Your task to perform on an android device: Add macbook pro 13 inch to the cart on walmart, then select checkout. Image 0: 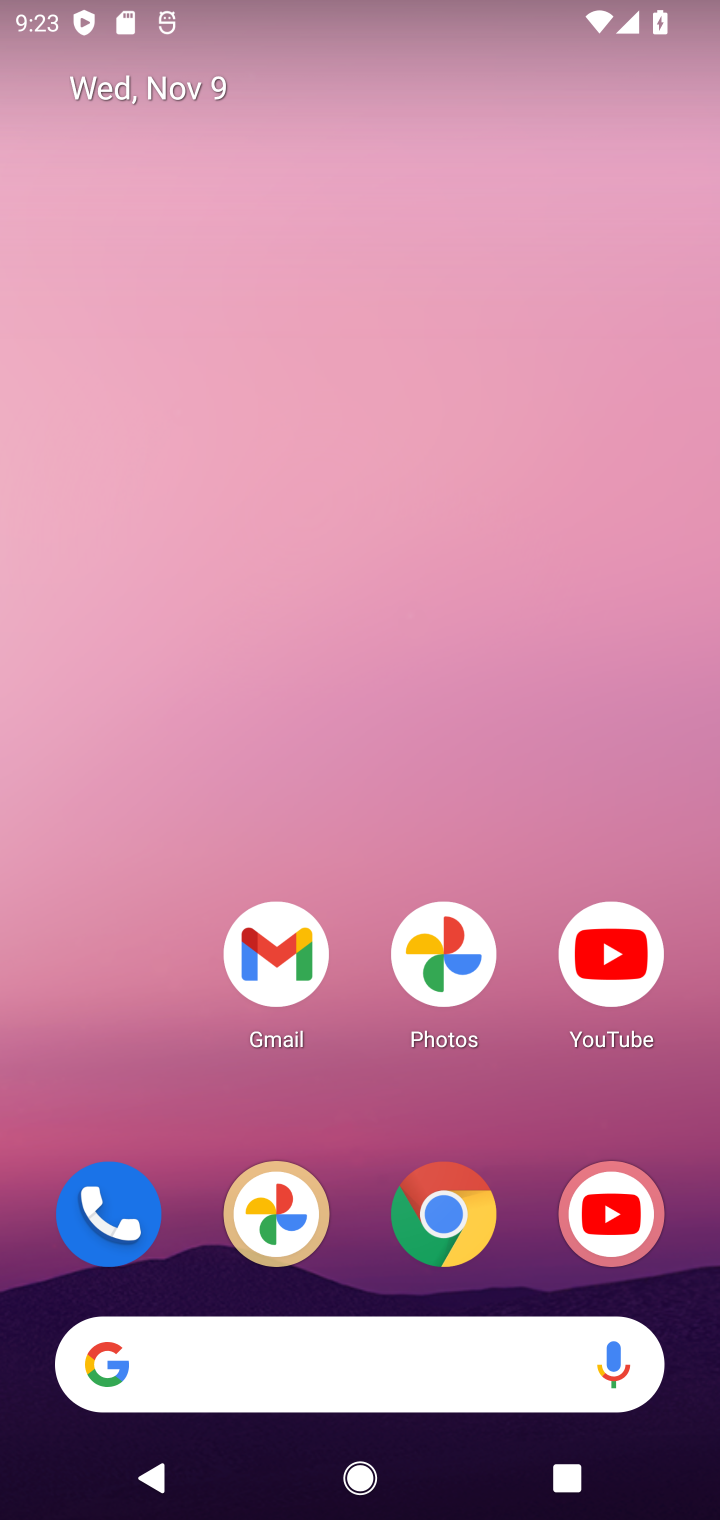
Step 0: press home button
Your task to perform on an android device: Add macbook pro 13 inch to the cart on walmart, then select checkout. Image 1: 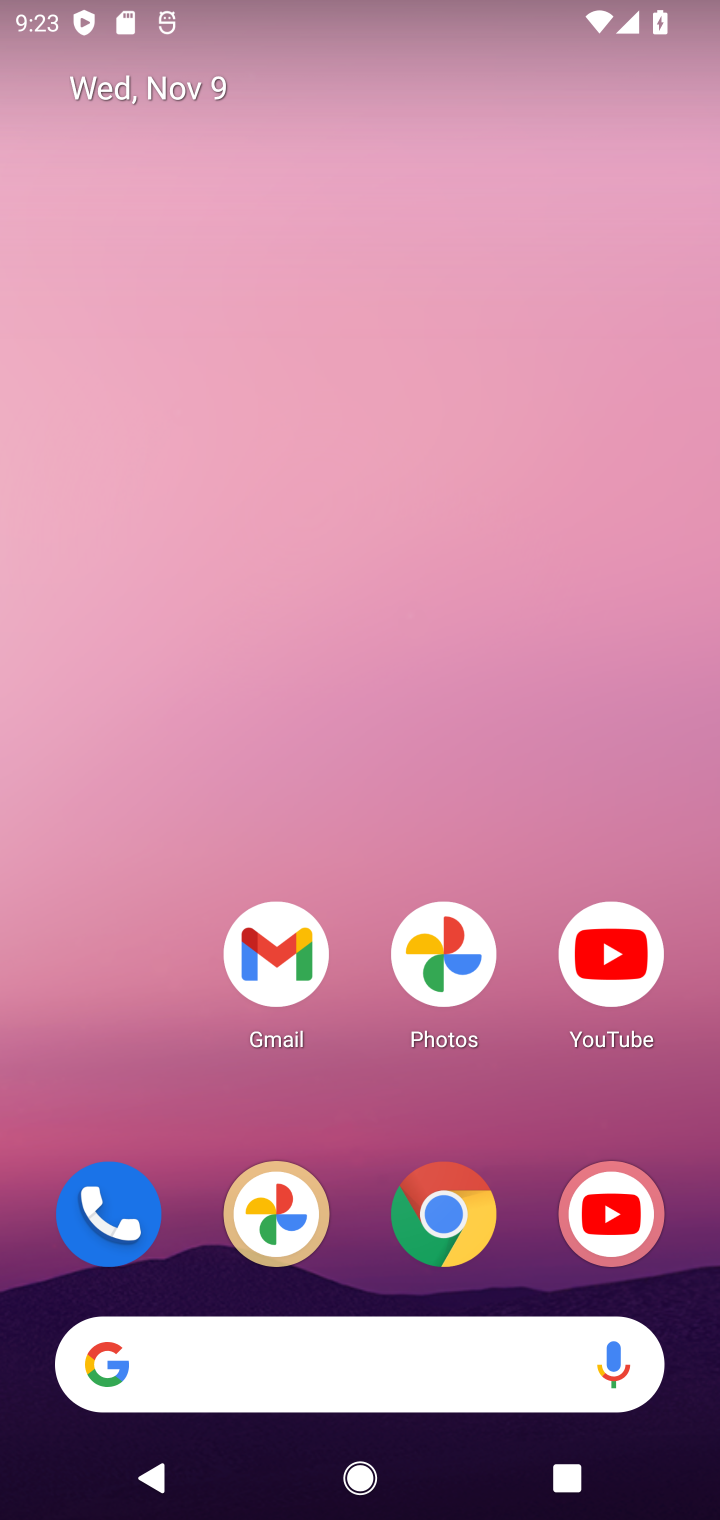
Step 1: drag from (327, 1142) to (392, 193)
Your task to perform on an android device: Add macbook pro 13 inch to the cart on walmart, then select checkout. Image 2: 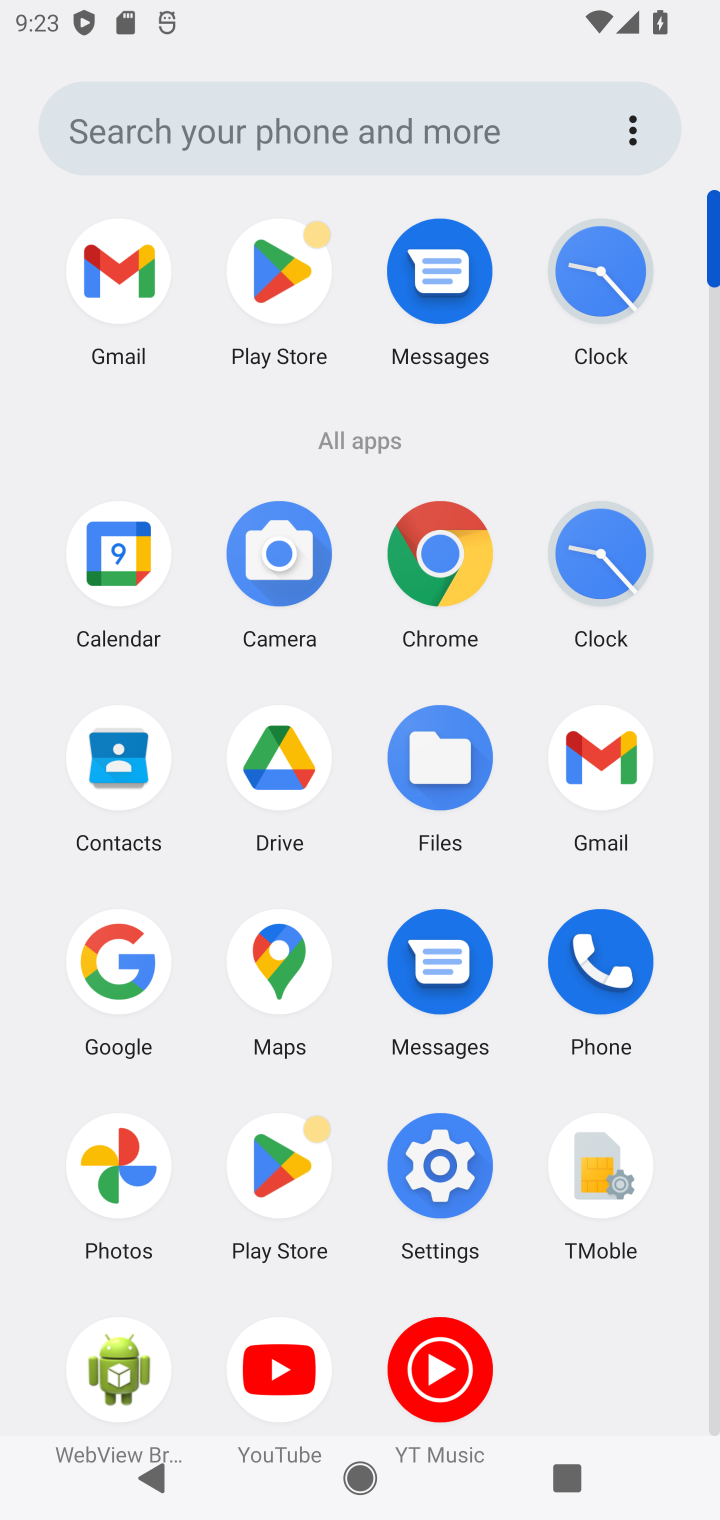
Step 2: click (426, 552)
Your task to perform on an android device: Add macbook pro 13 inch to the cart on walmart, then select checkout. Image 3: 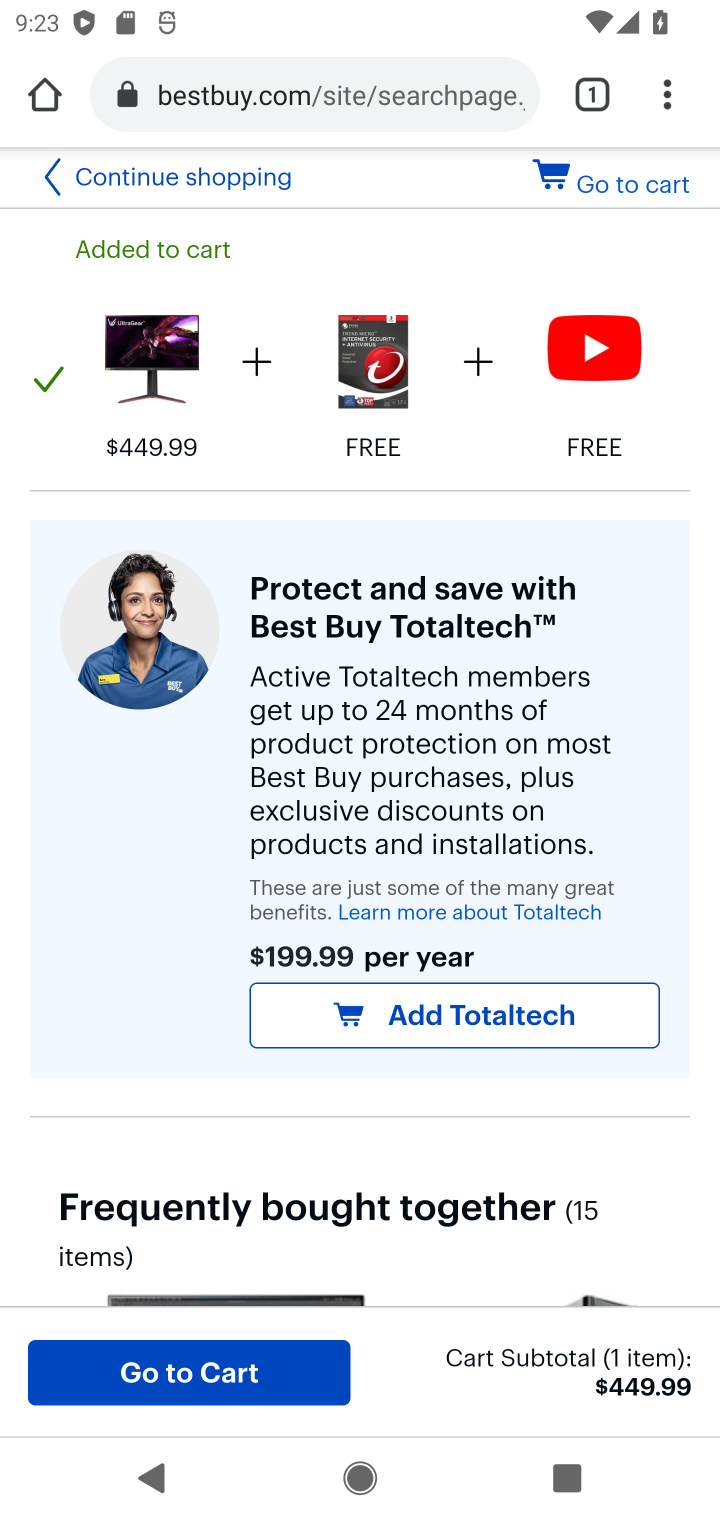
Step 3: click (371, 101)
Your task to perform on an android device: Add macbook pro 13 inch to the cart on walmart, then select checkout. Image 4: 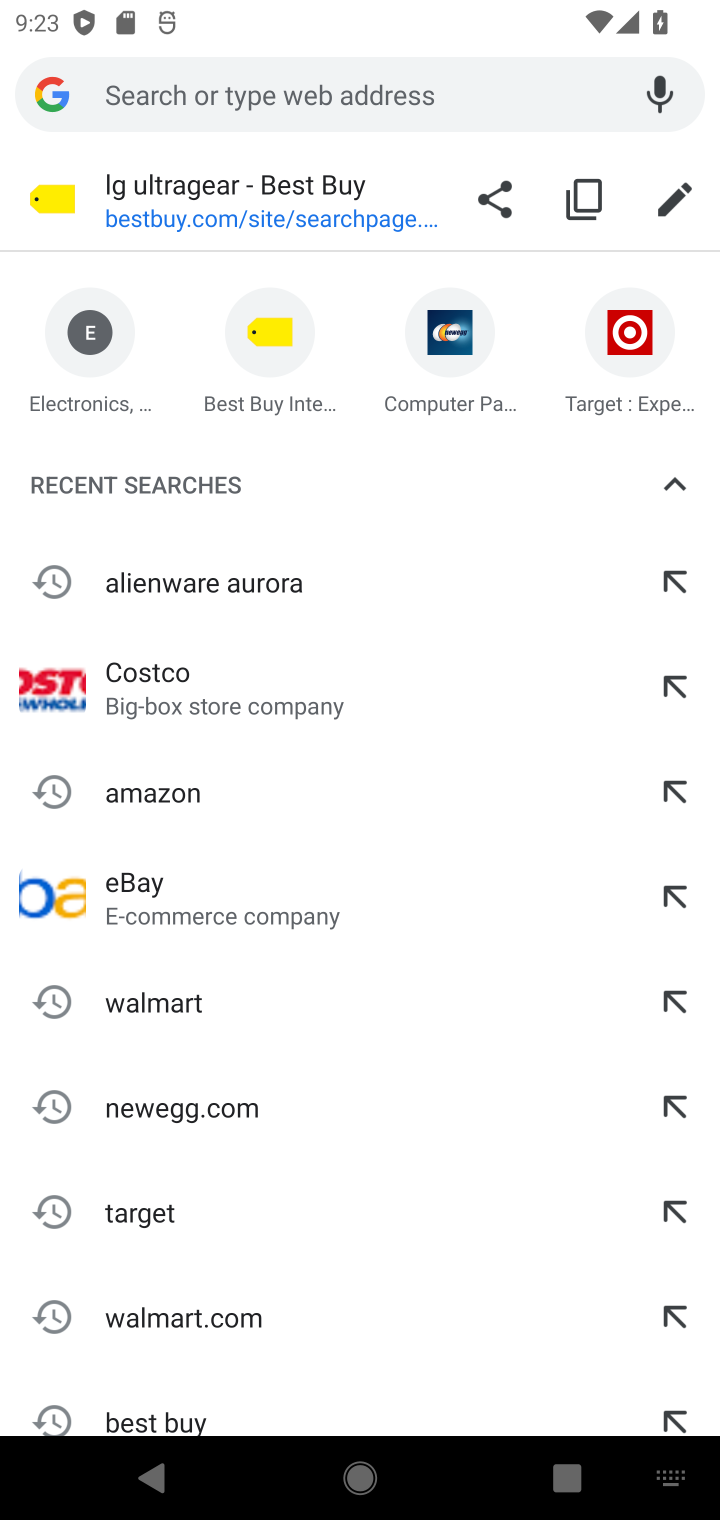
Step 4: type "walmart.com"
Your task to perform on an android device: Add macbook pro 13 inch to the cart on walmart, then select checkout. Image 5: 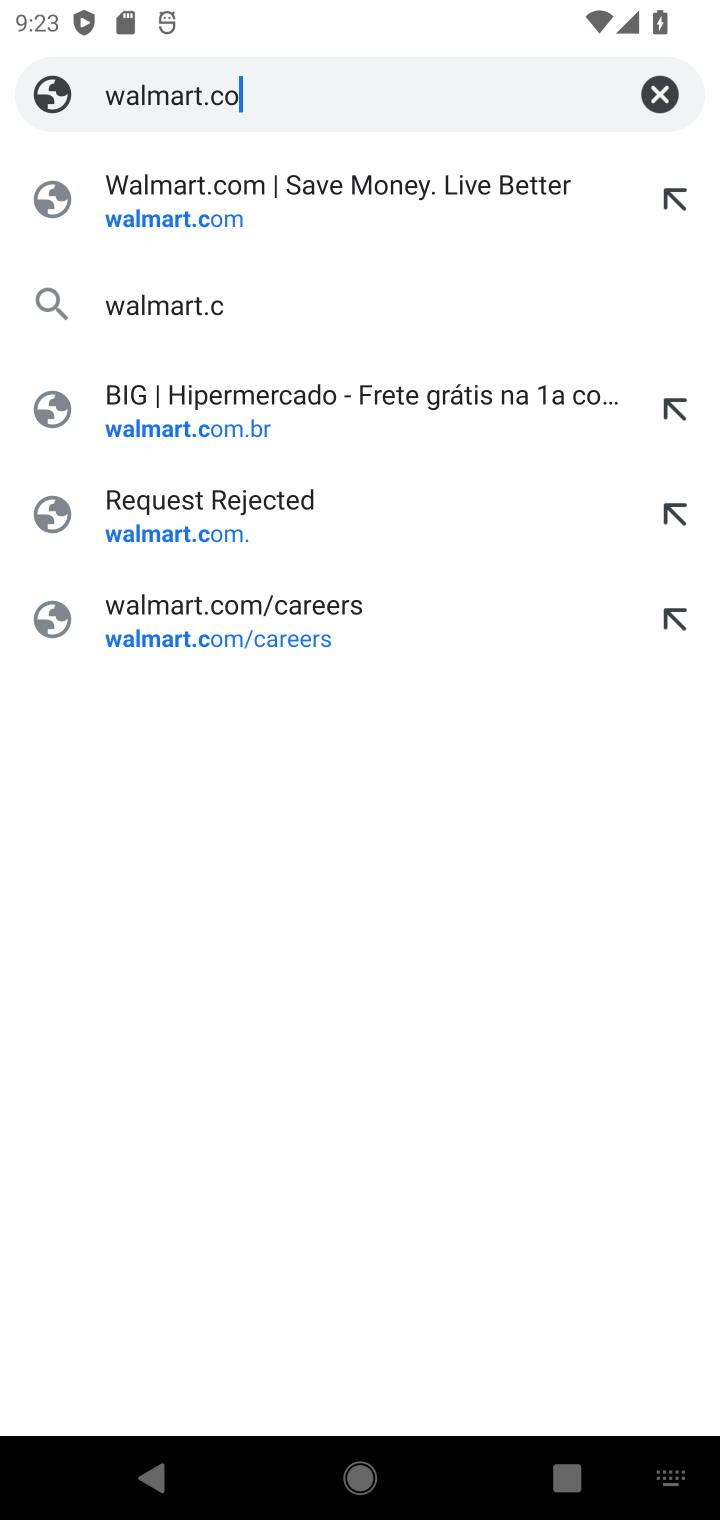
Step 5: press enter
Your task to perform on an android device: Add macbook pro 13 inch to the cart on walmart, then select checkout. Image 6: 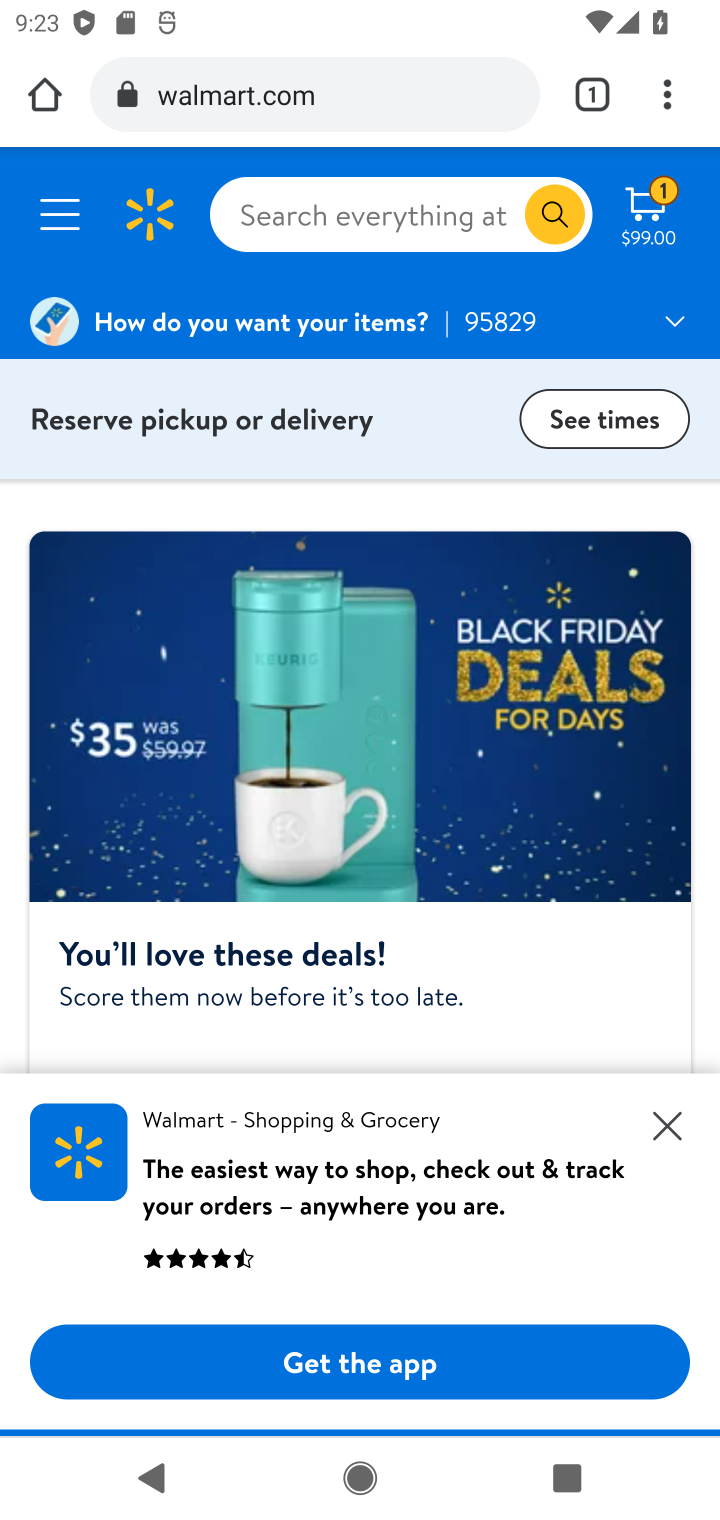
Step 6: click (443, 241)
Your task to perform on an android device: Add macbook pro 13 inch to the cart on walmart, then select checkout. Image 7: 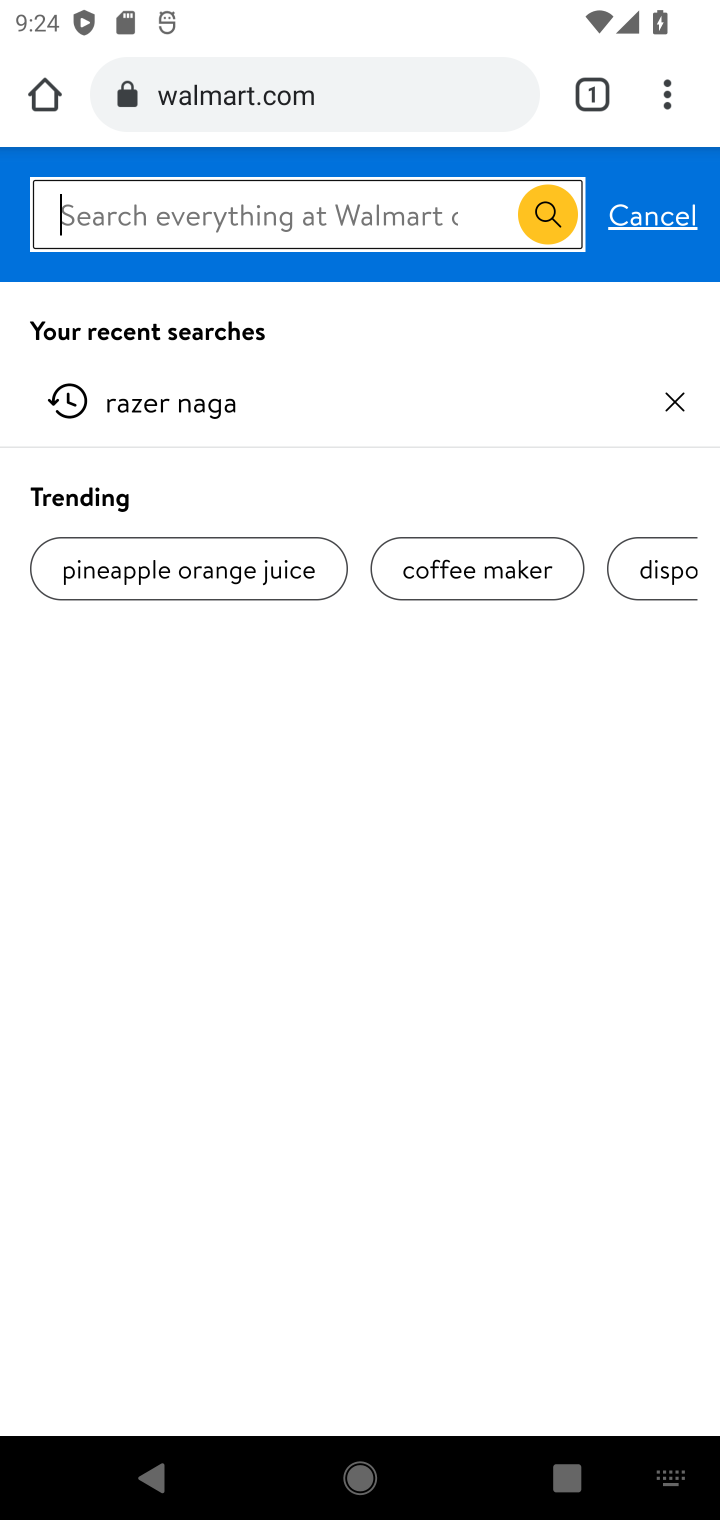
Step 7: type "macbook pro 13 inch"
Your task to perform on an android device: Add macbook pro 13 inch to the cart on walmart, then select checkout. Image 8: 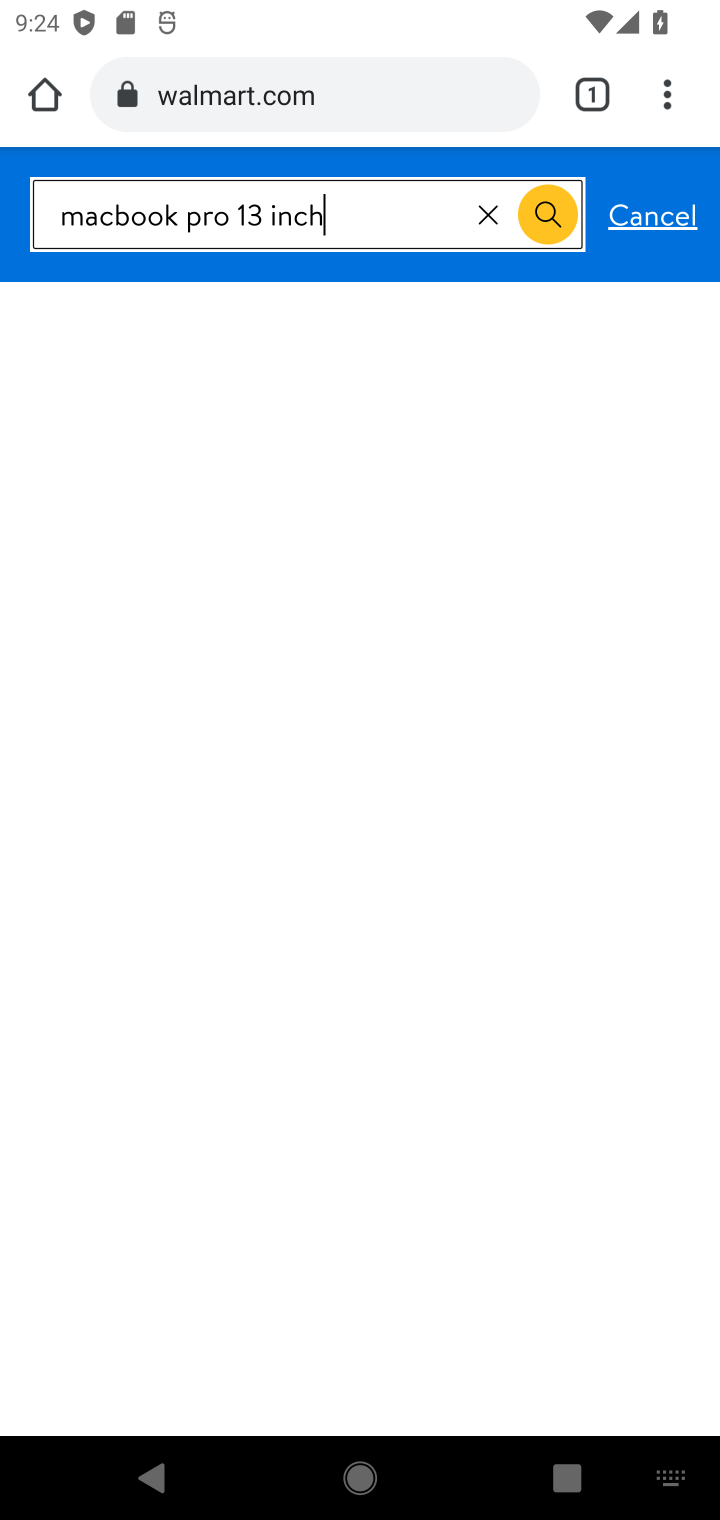
Step 8: press enter
Your task to perform on an android device: Add macbook pro 13 inch to the cart on walmart, then select checkout. Image 9: 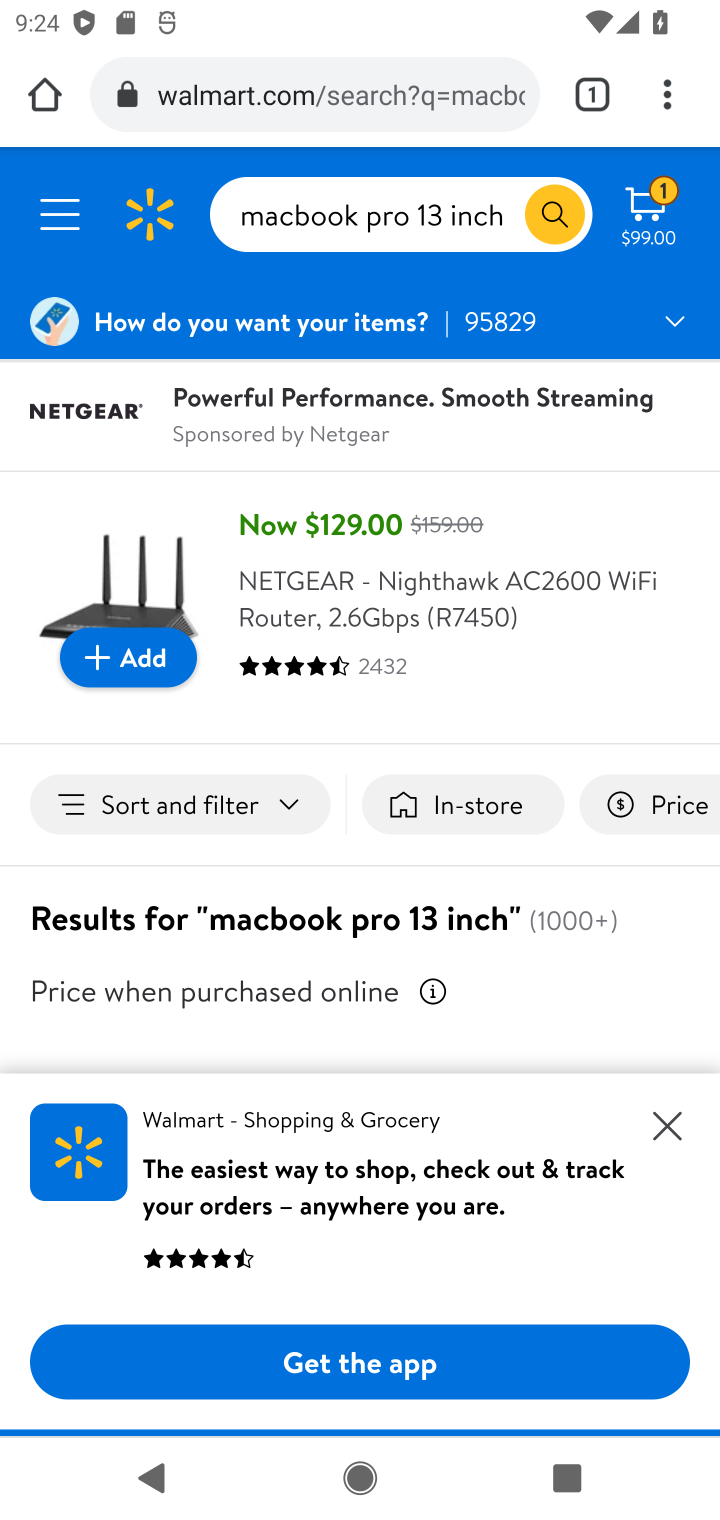
Step 9: drag from (444, 899) to (499, 256)
Your task to perform on an android device: Add macbook pro 13 inch to the cart on walmart, then select checkout. Image 10: 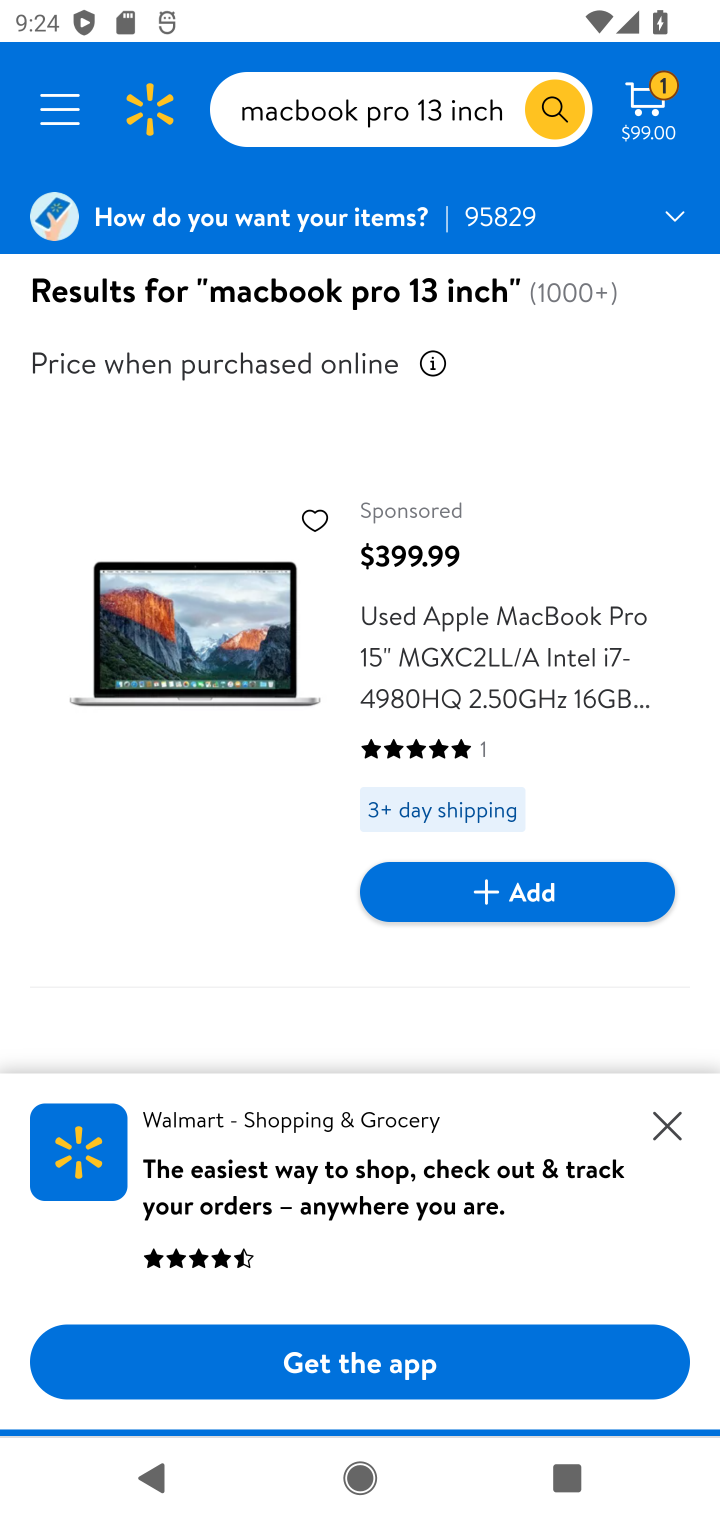
Step 10: drag from (290, 719) to (322, 200)
Your task to perform on an android device: Add macbook pro 13 inch to the cart on walmart, then select checkout. Image 11: 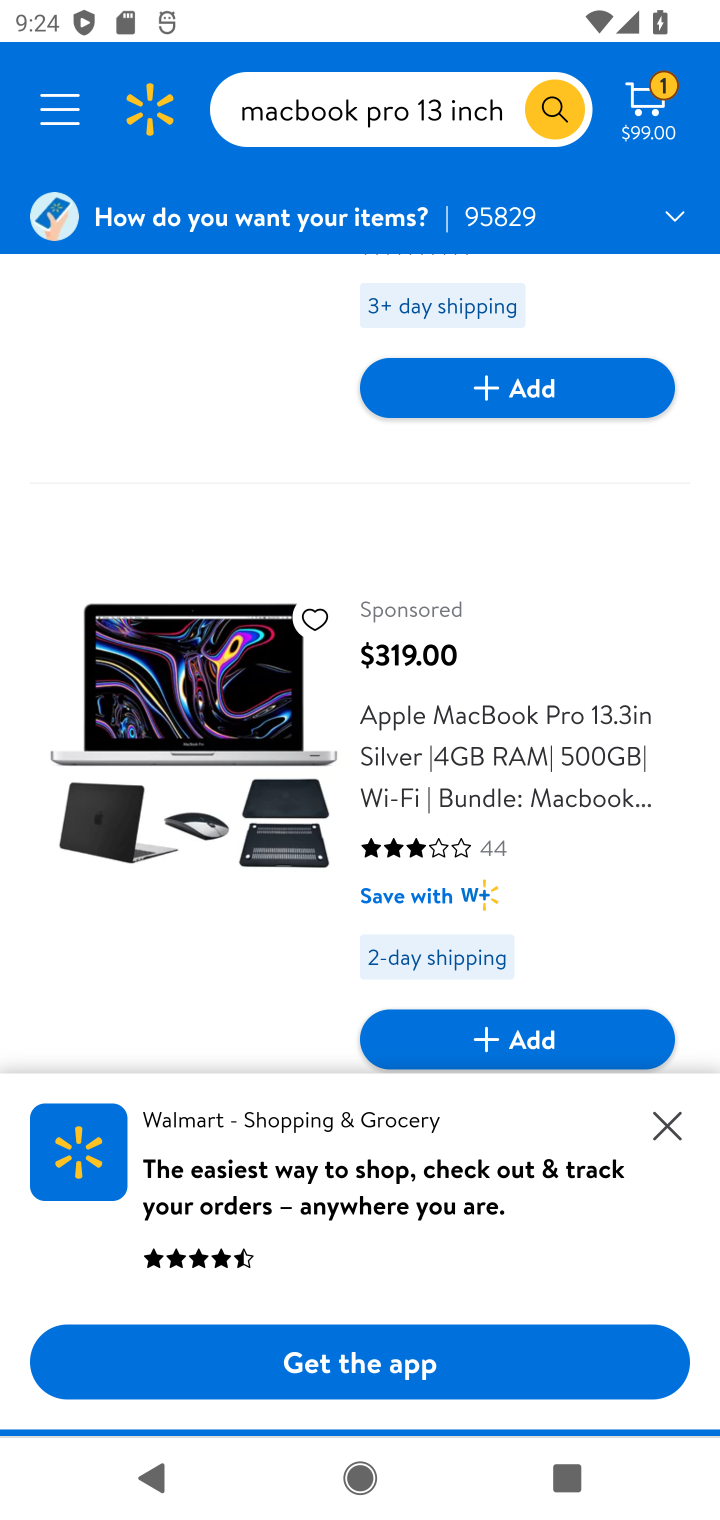
Step 11: drag from (256, 938) to (301, 244)
Your task to perform on an android device: Add macbook pro 13 inch to the cart on walmart, then select checkout. Image 12: 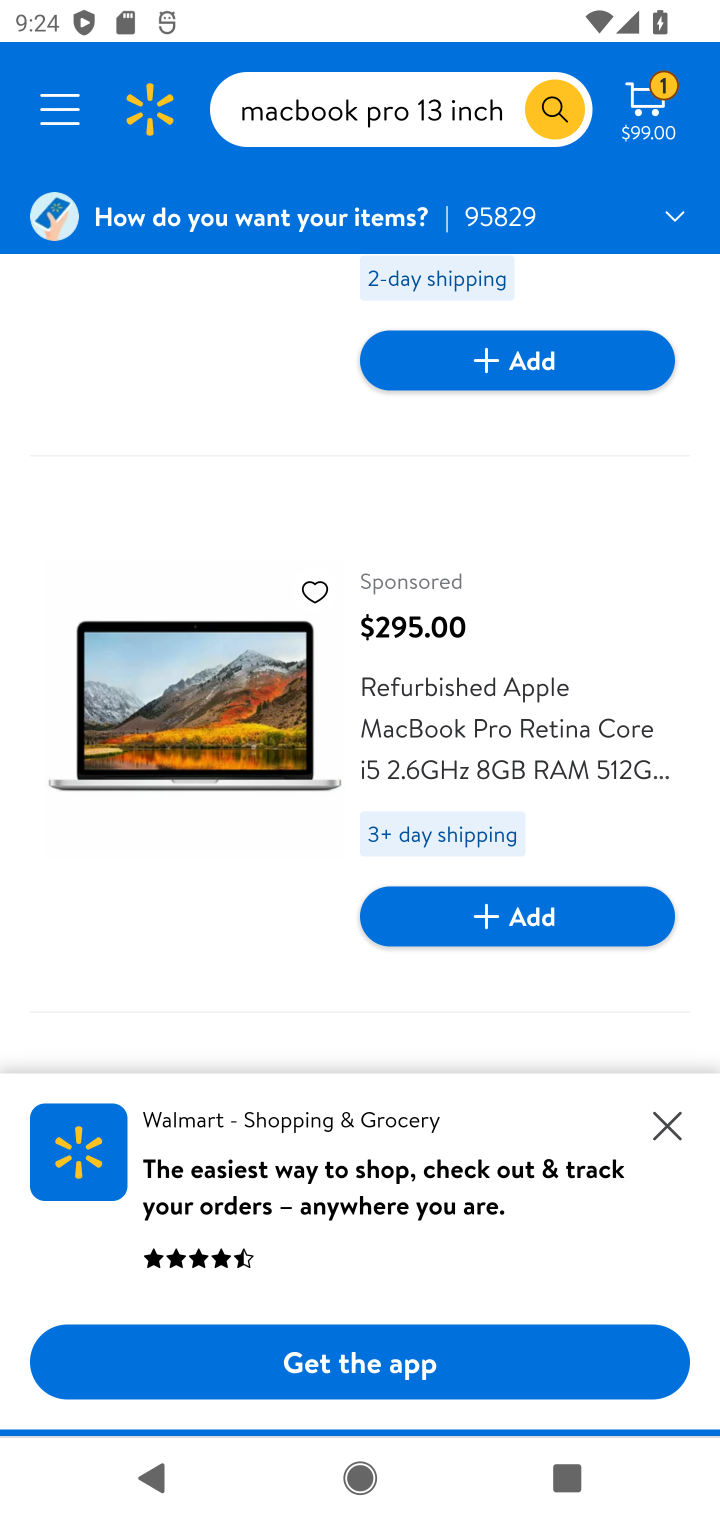
Step 12: drag from (361, 988) to (386, 431)
Your task to perform on an android device: Add macbook pro 13 inch to the cart on walmart, then select checkout. Image 13: 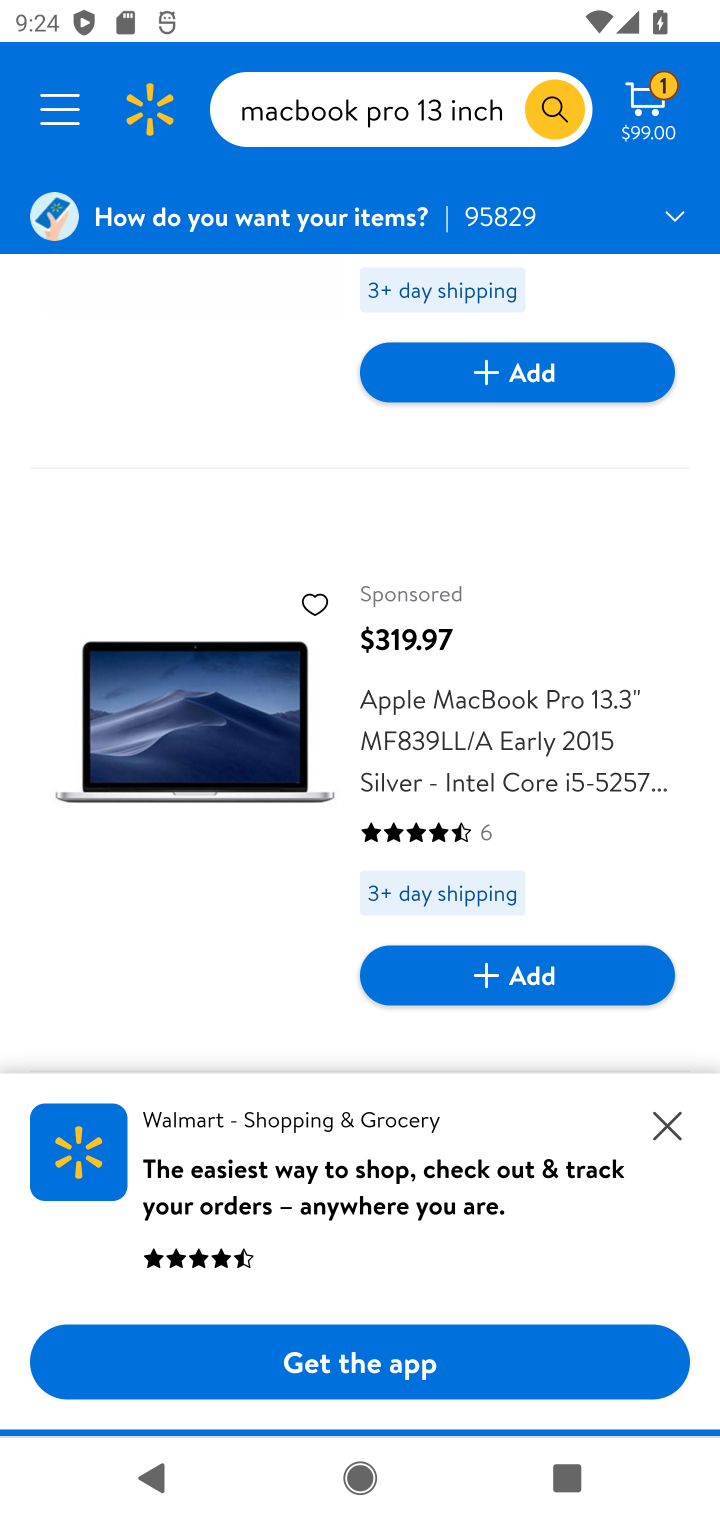
Step 13: drag from (221, 971) to (295, 357)
Your task to perform on an android device: Add macbook pro 13 inch to the cart on walmart, then select checkout. Image 14: 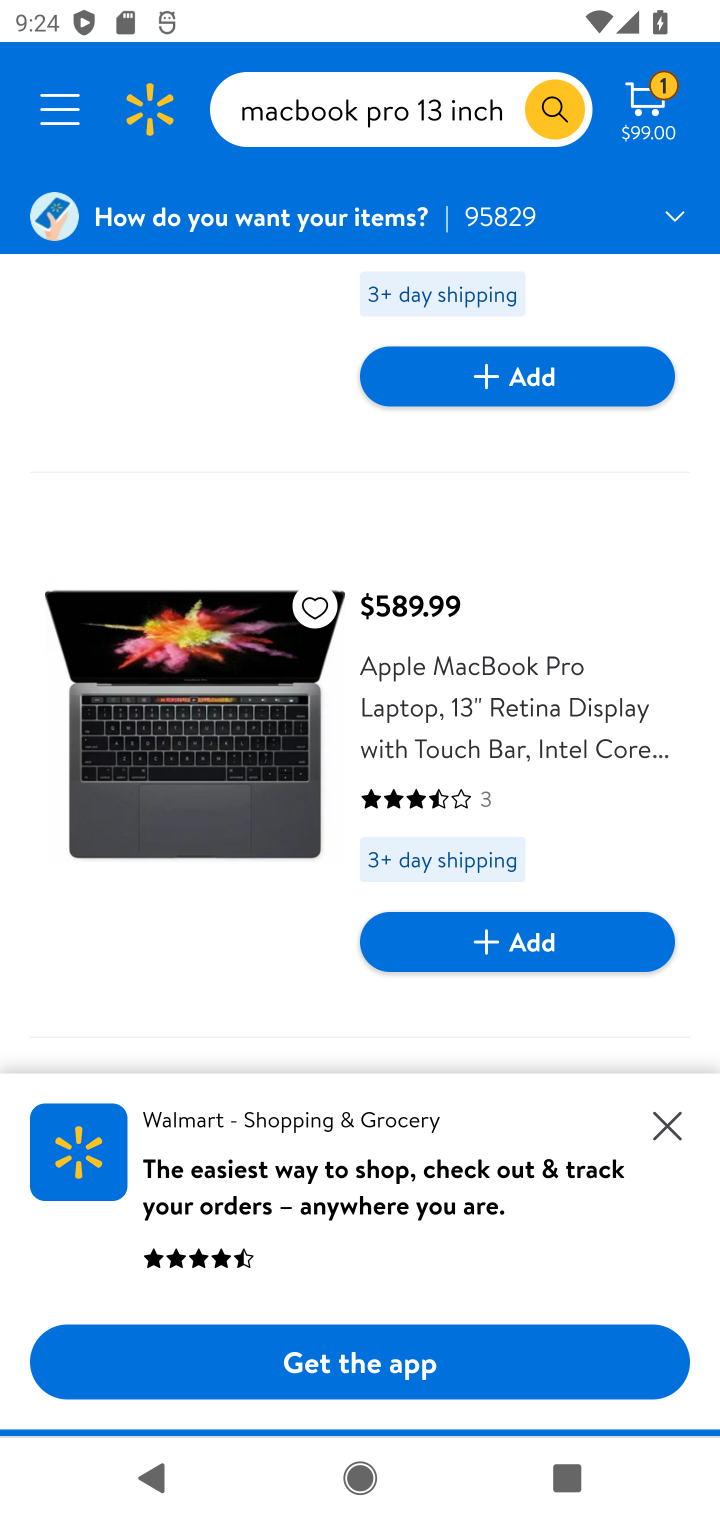
Step 14: drag from (172, 449) to (258, 1106)
Your task to perform on an android device: Add macbook pro 13 inch to the cart on walmart, then select checkout. Image 15: 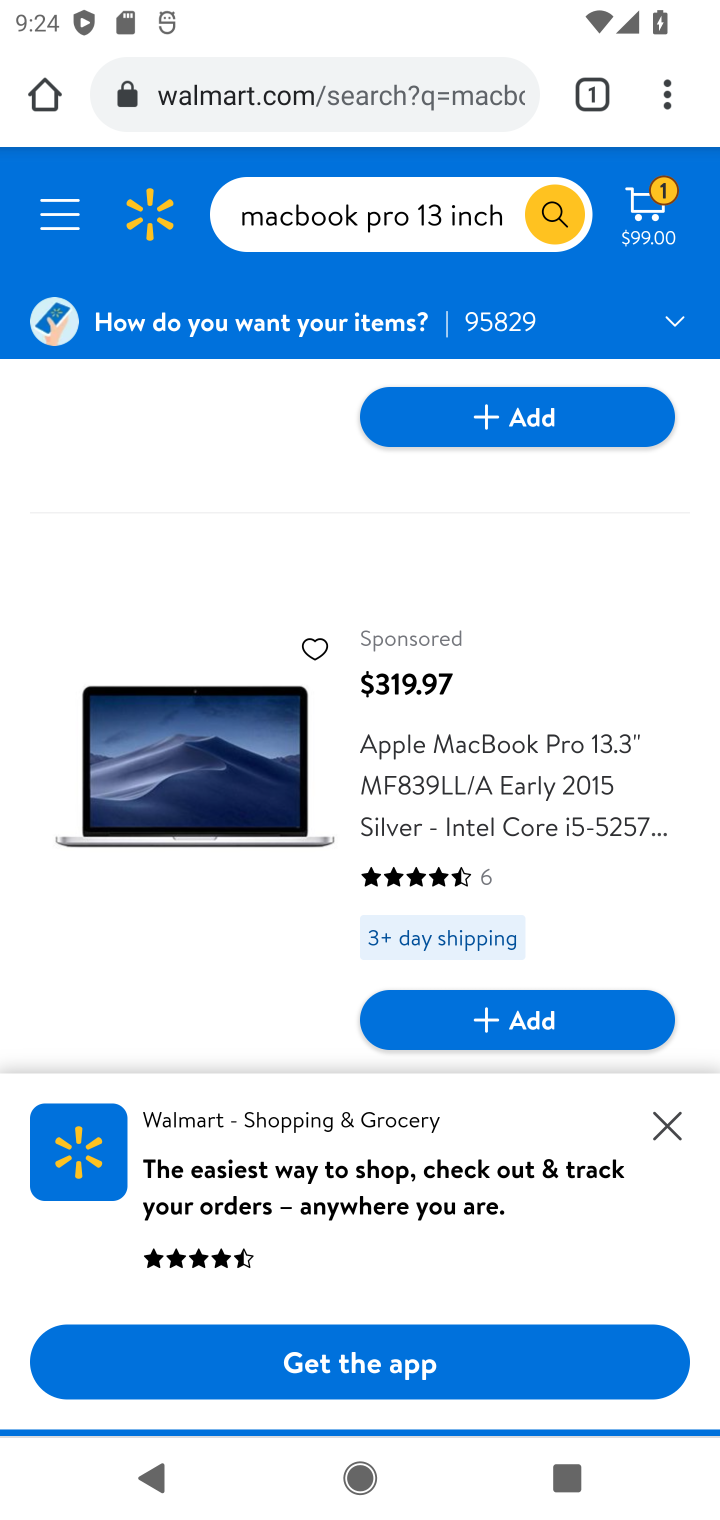
Step 15: drag from (256, 863) to (327, 339)
Your task to perform on an android device: Add macbook pro 13 inch to the cart on walmart, then select checkout. Image 16: 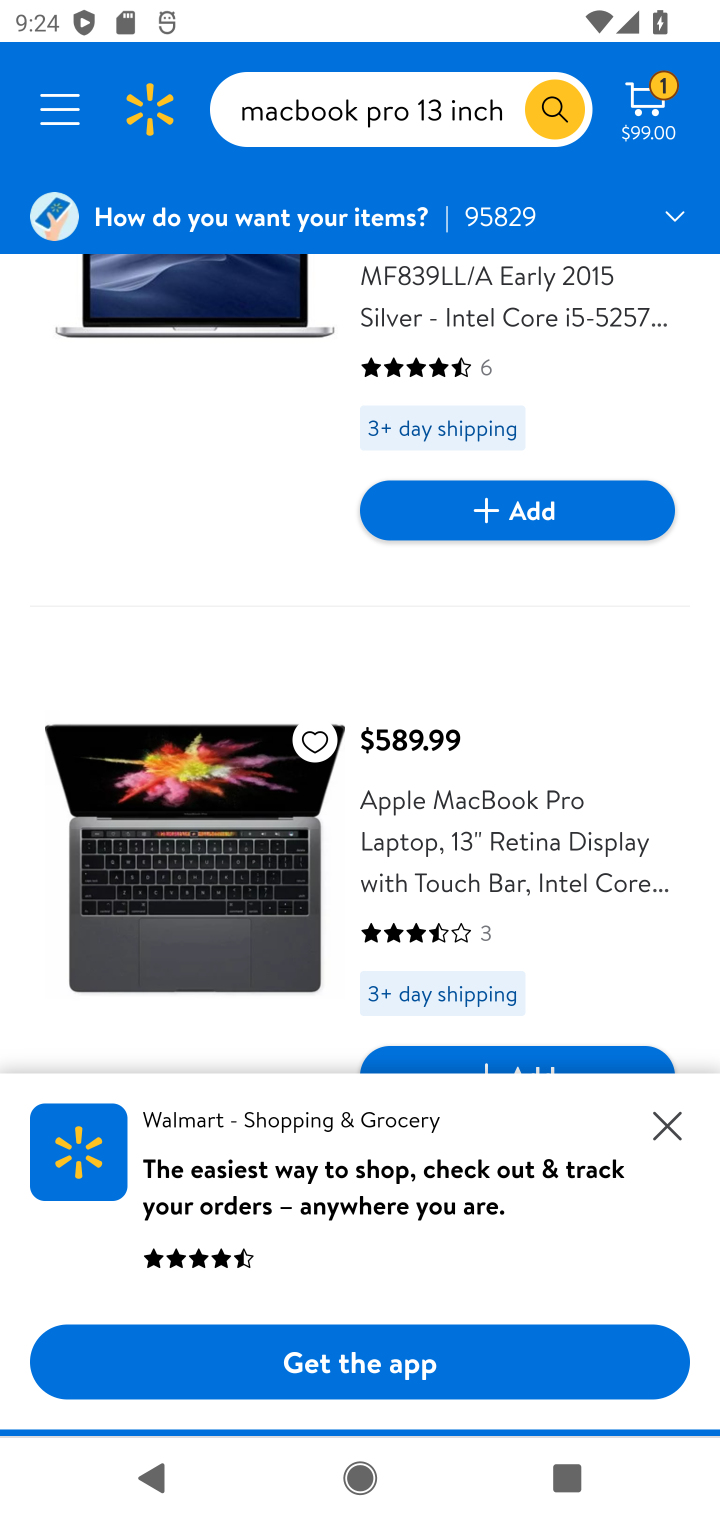
Step 16: drag from (176, 1026) to (200, 615)
Your task to perform on an android device: Add macbook pro 13 inch to the cart on walmart, then select checkout. Image 17: 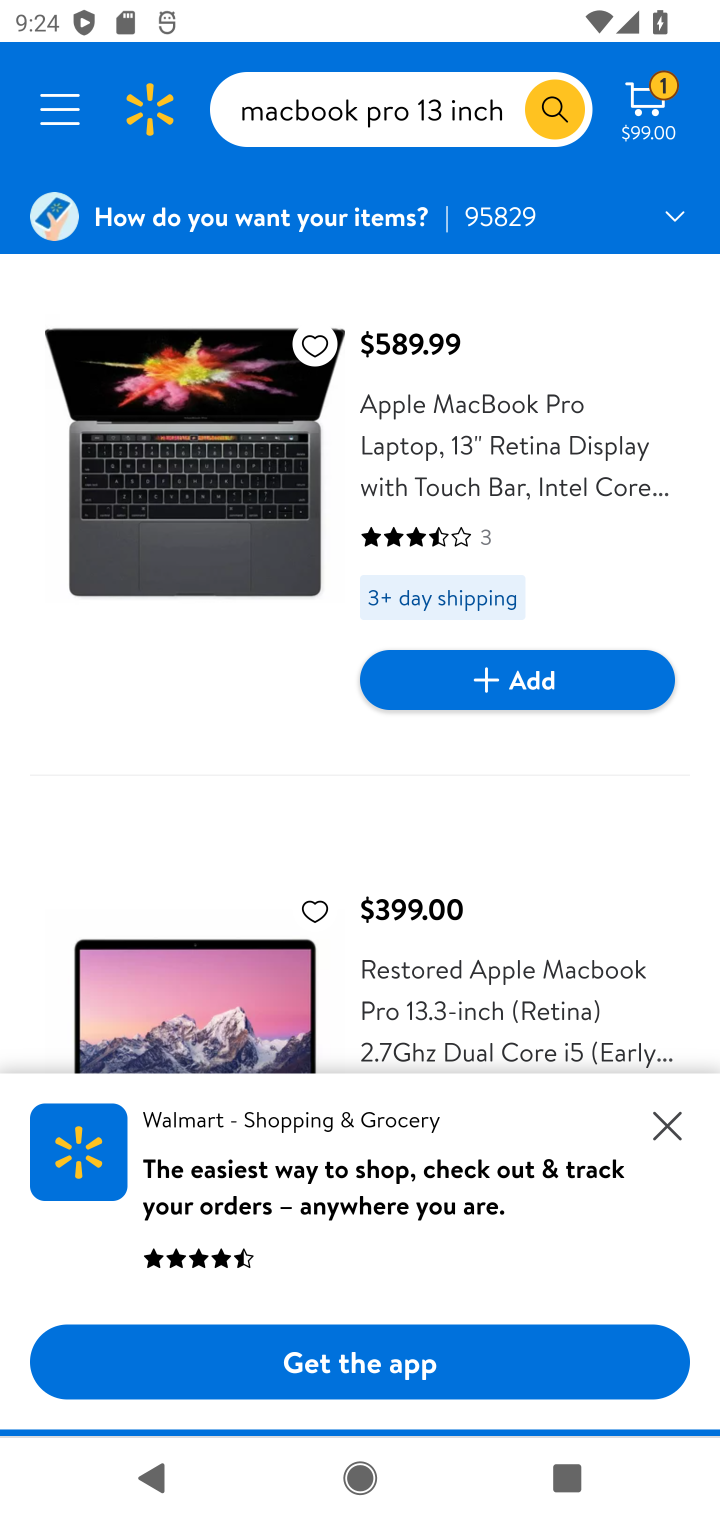
Step 17: click (561, 671)
Your task to perform on an android device: Add macbook pro 13 inch to the cart on walmart, then select checkout. Image 18: 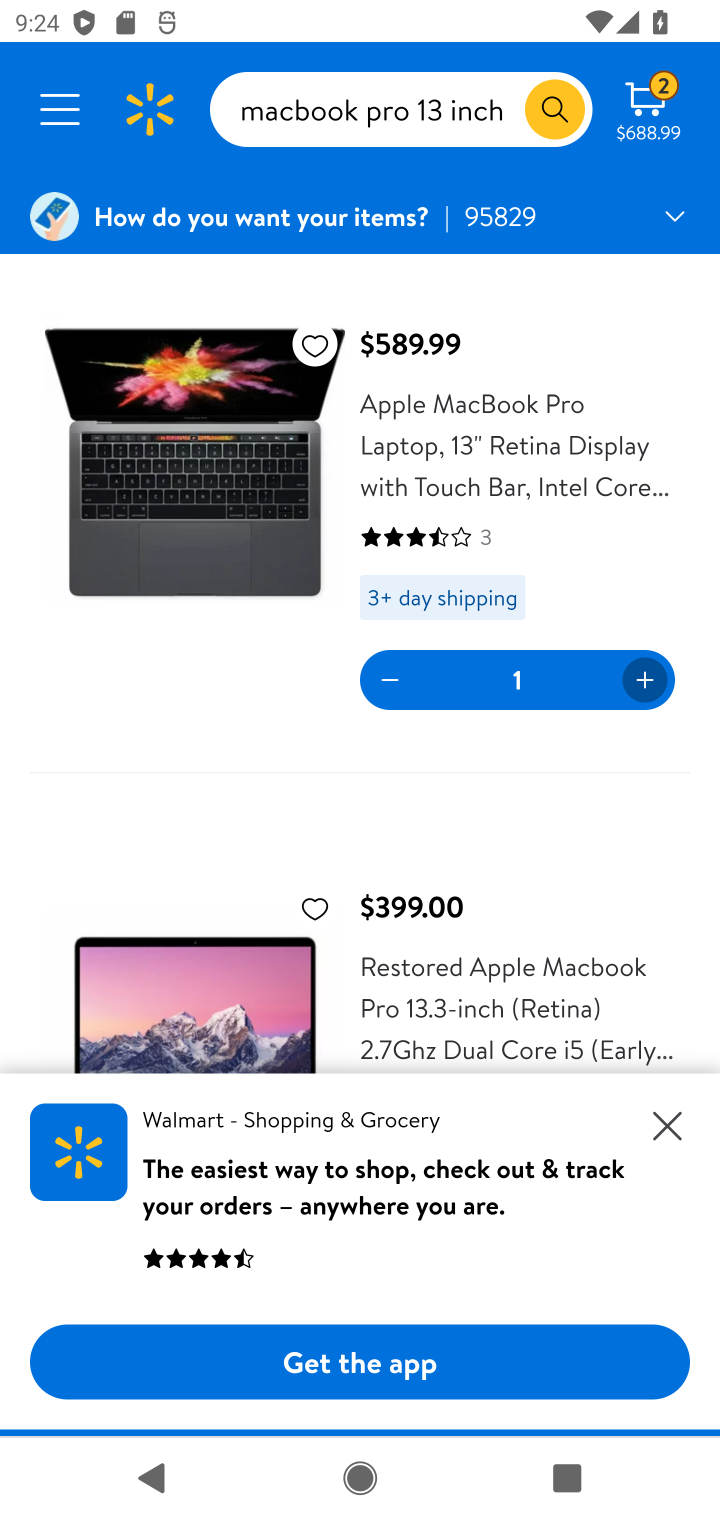
Step 18: click (676, 90)
Your task to perform on an android device: Add macbook pro 13 inch to the cart on walmart, then select checkout. Image 19: 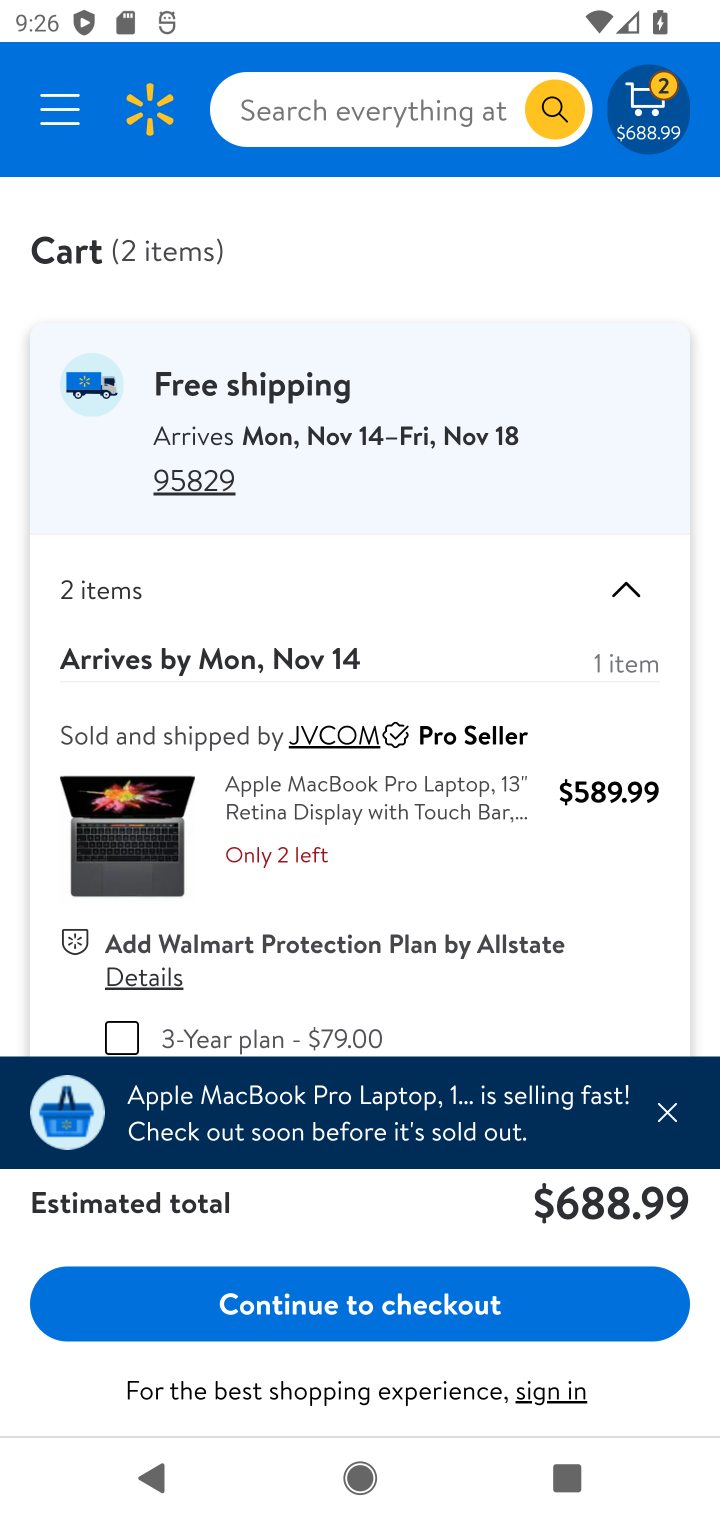
Step 19: click (518, 1312)
Your task to perform on an android device: Add macbook pro 13 inch to the cart on walmart, then select checkout. Image 20: 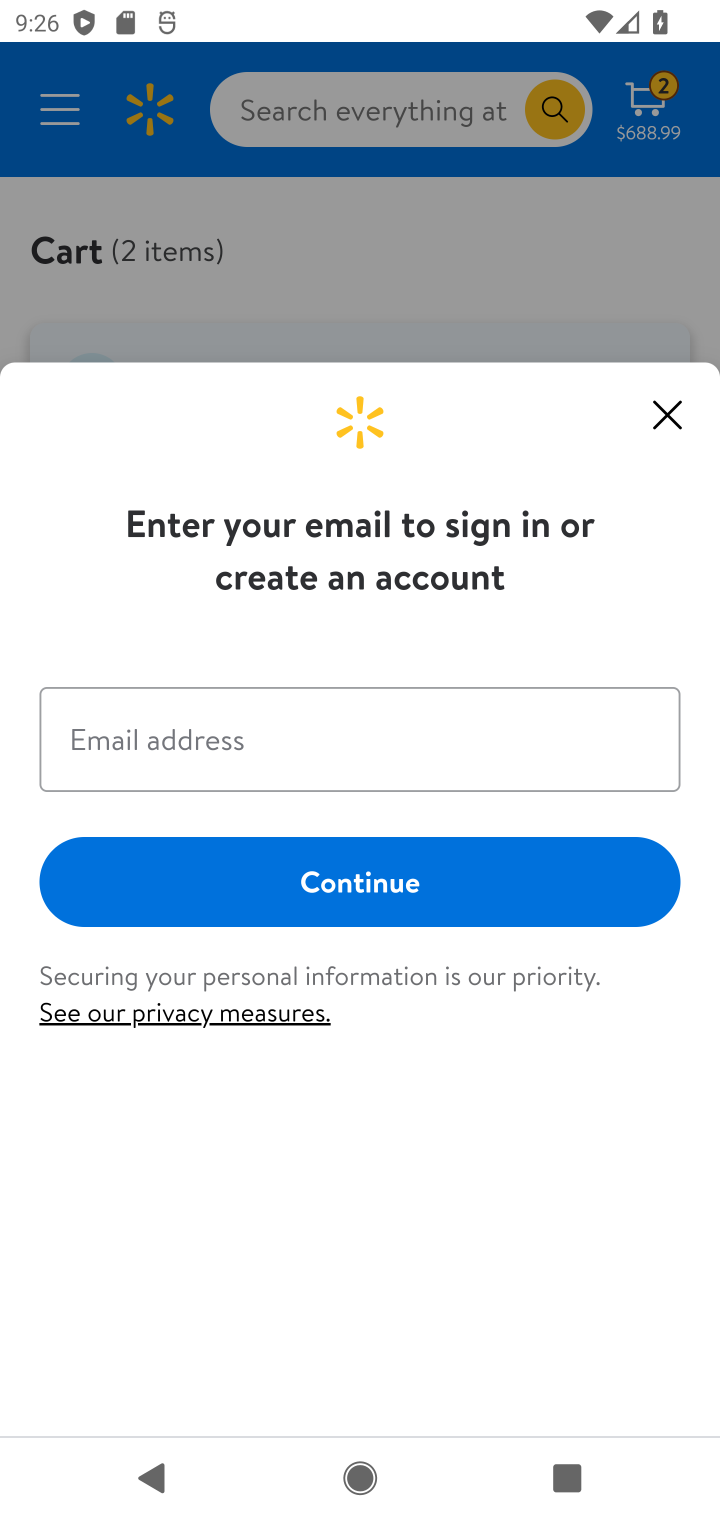
Step 20: task complete